Your task to perform on an android device: change keyboard looks Image 0: 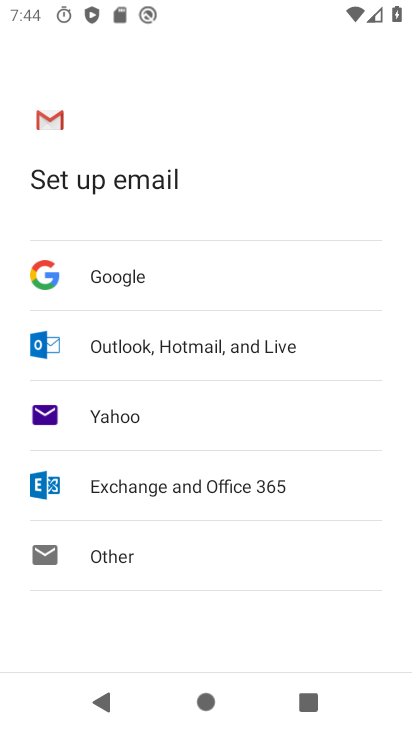
Step 0: press home button
Your task to perform on an android device: change keyboard looks Image 1: 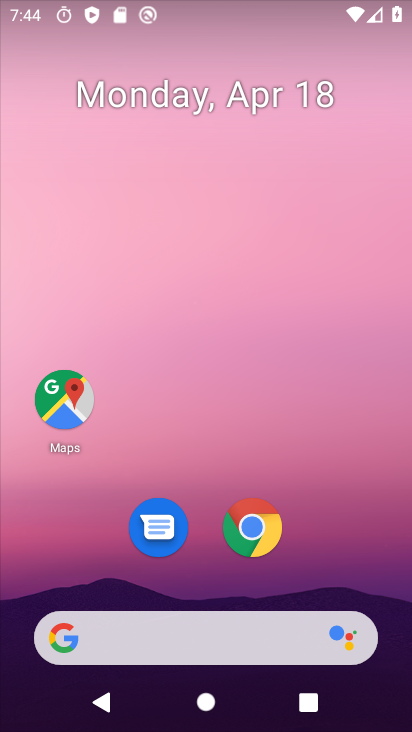
Step 1: drag from (369, 541) to (346, 144)
Your task to perform on an android device: change keyboard looks Image 2: 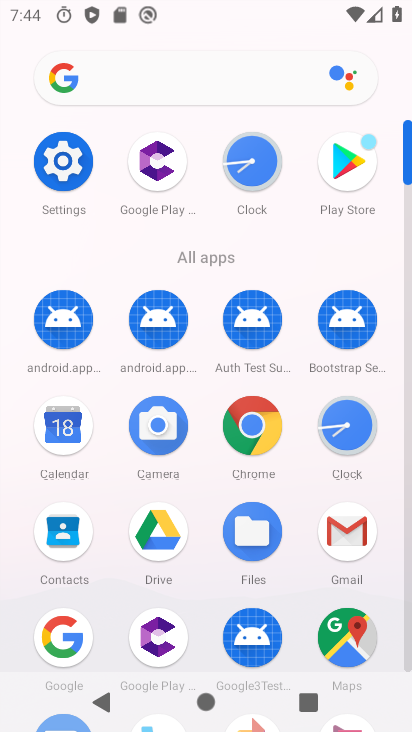
Step 2: click (48, 165)
Your task to perform on an android device: change keyboard looks Image 3: 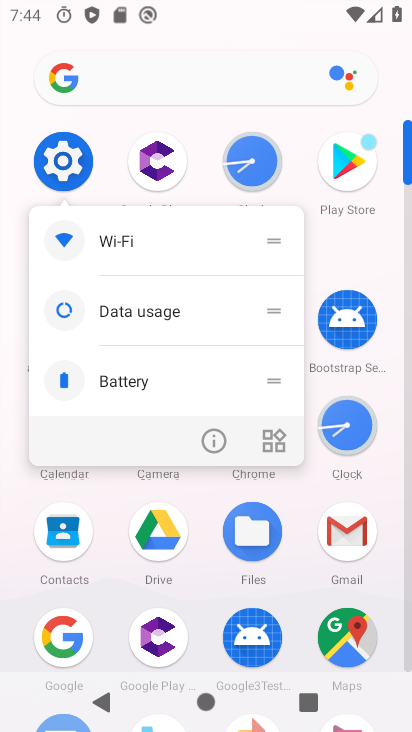
Step 3: click (66, 175)
Your task to perform on an android device: change keyboard looks Image 4: 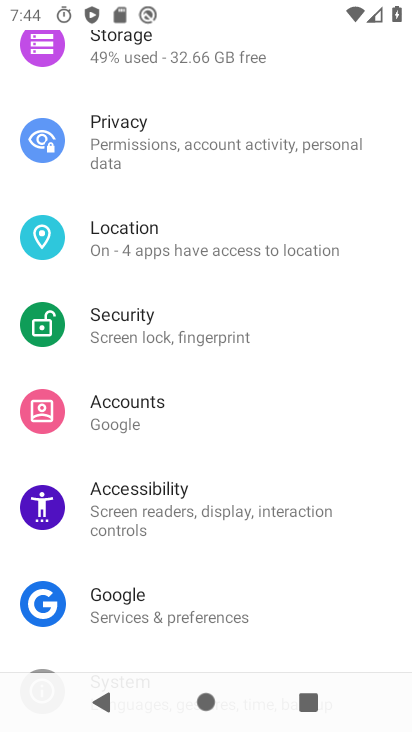
Step 4: drag from (366, 575) to (349, 246)
Your task to perform on an android device: change keyboard looks Image 5: 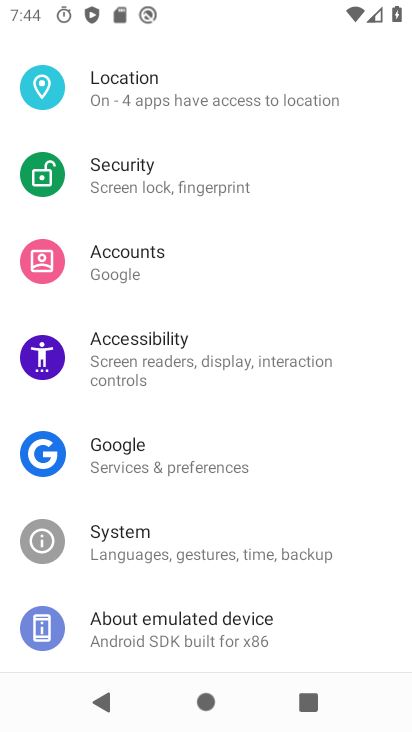
Step 5: click (234, 556)
Your task to perform on an android device: change keyboard looks Image 6: 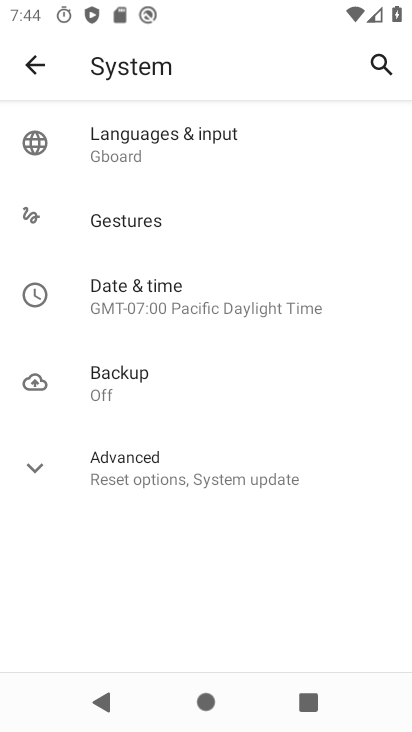
Step 6: click (210, 136)
Your task to perform on an android device: change keyboard looks Image 7: 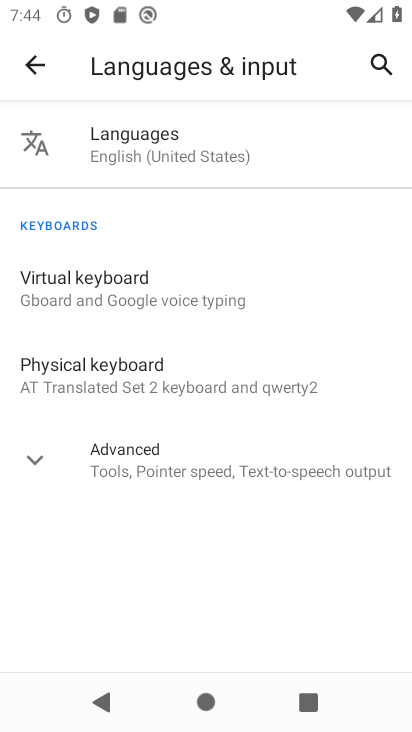
Step 7: click (134, 272)
Your task to perform on an android device: change keyboard looks Image 8: 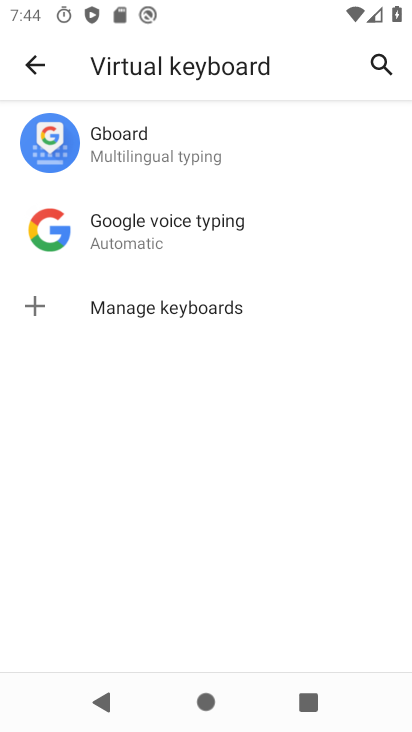
Step 8: click (145, 136)
Your task to perform on an android device: change keyboard looks Image 9: 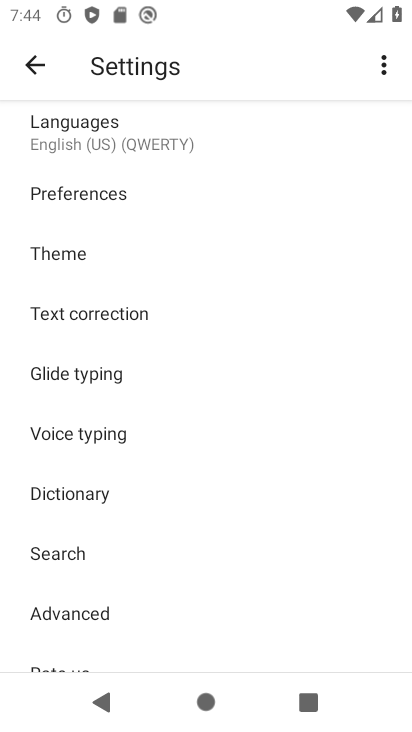
Step 9: click (54, 254)
Your task to perform on an android device: change keyboard looks Image 10: 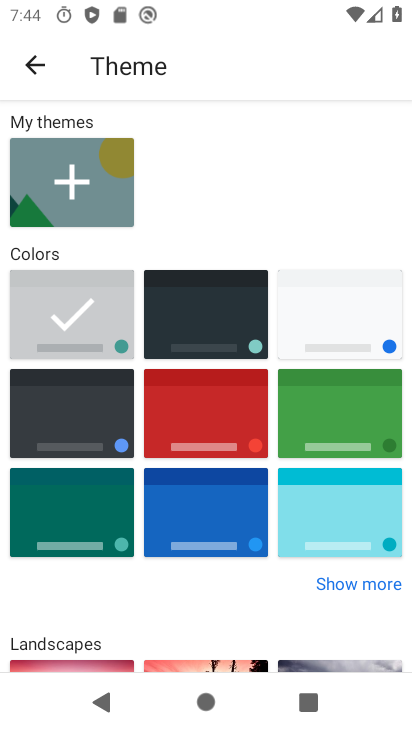
Step 10: click (229, 335)
Your task to perform on an android device: change keyboard looks Image 11: 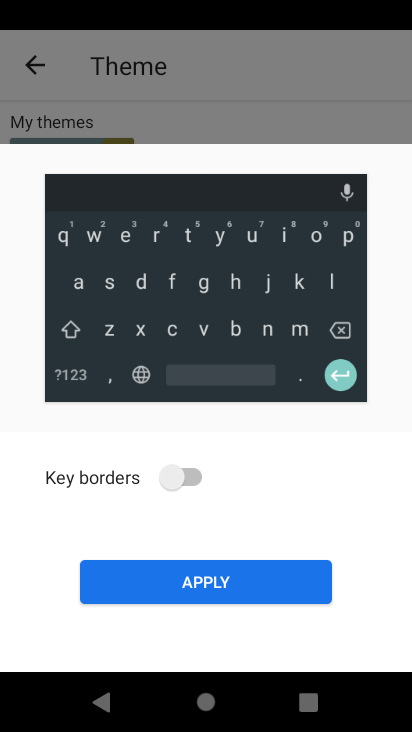
Step 11: click (227, 593)
Your task to perform on an android device: change keyboard looks Image 12: 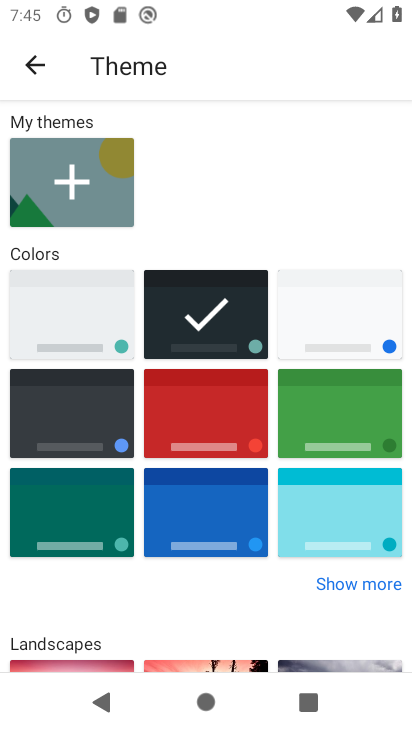
Step 12: task complete